Your task to perform on an android device: clear history in the chrome app Image 0: 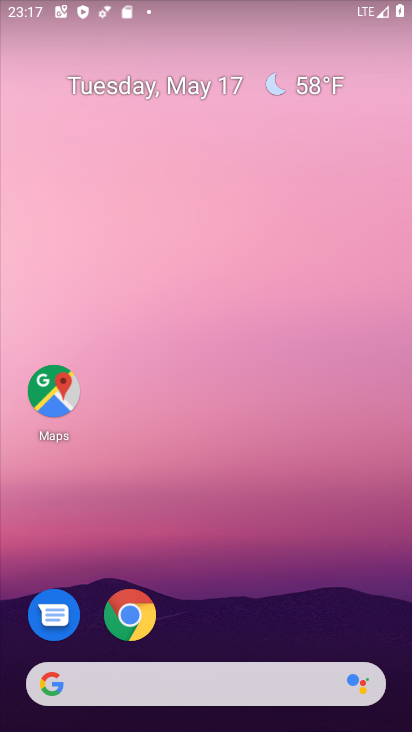
Step 0: click (145, 603)
Your task to perform on an android device: clear history in the chrome app Image 1: 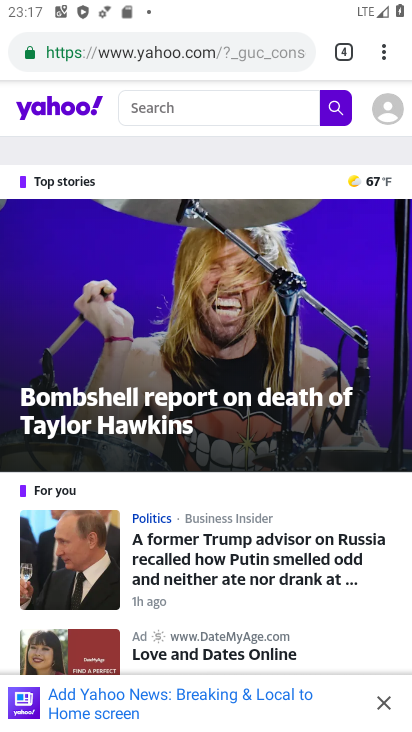
Step 1: drag from (378, 54) to (235, 293)
Your task to perform on an android device: clear history in the chrome app Image 2: 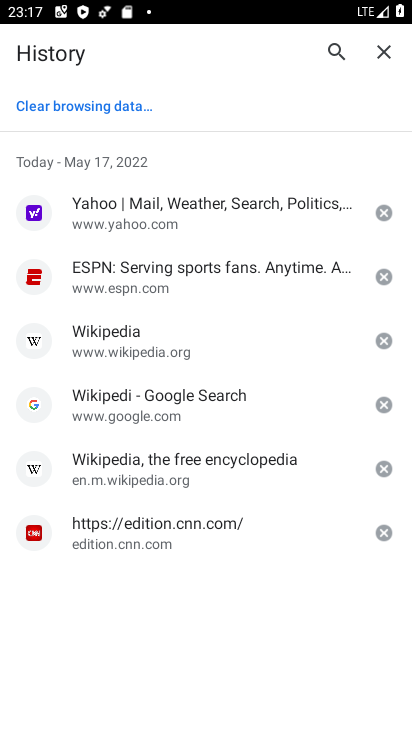
Step 2: click (110, 110)
Your task to perform on an android device: clear history in the chrome app Image 3: 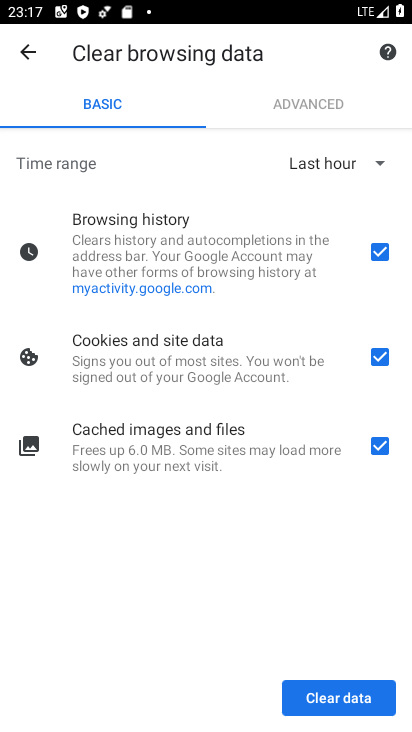
Step 3: click (367, 687)
Your task to perform on an android device: clear history in the chrome app Image 4: 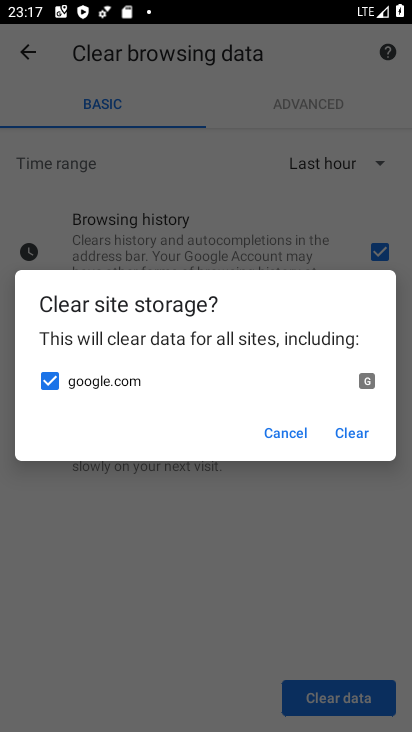
Step 4: click (358, 437)
Your task to perform on an android device: clear history in the chrome app Image 5: 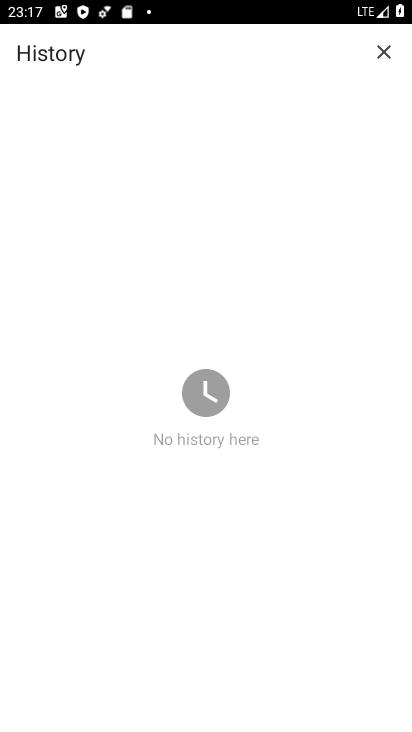
Step 5: task complete